Your task to perform on an android device: Search for vegetarian restaurants on Maps Image 0: 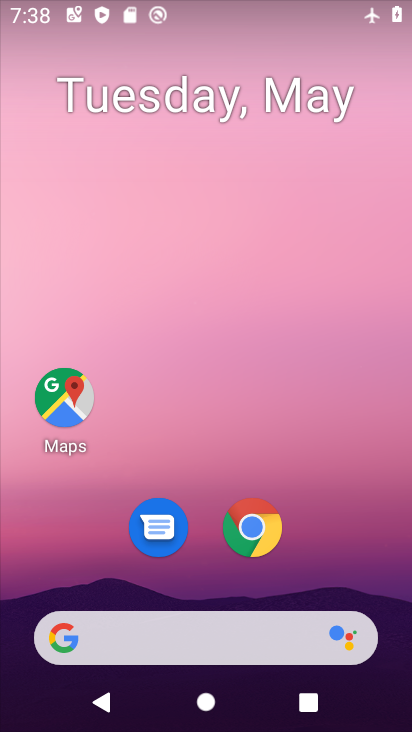
Step 0: click (64, 403)
Your task to perform on an android device: Search for vegetarian restaurants on Maps Image 1: 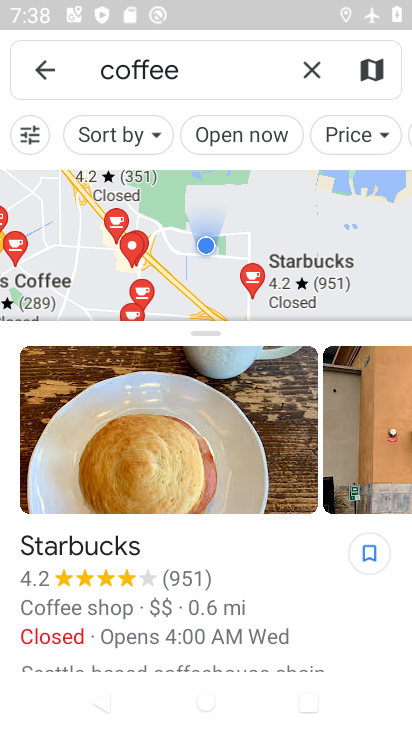
Step 1: click (313, 70)
Your task to perform on an android device: Search for vegetarian restaurants on Maps Image 2: 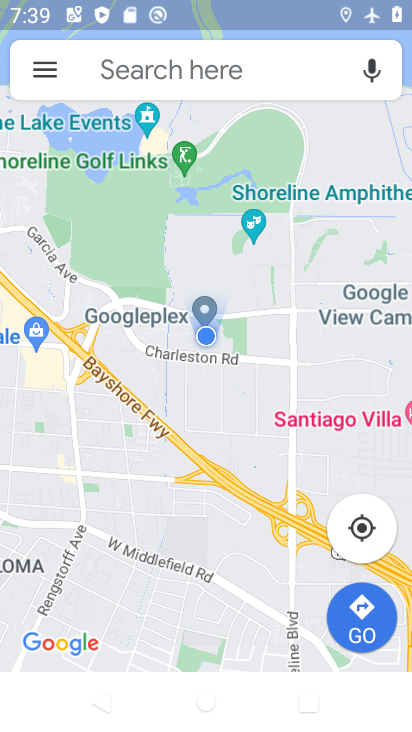
Step 2: click (292, 75)
Your task to perform on an android device: Search for vegetarian restaurants on Maps Image 3: 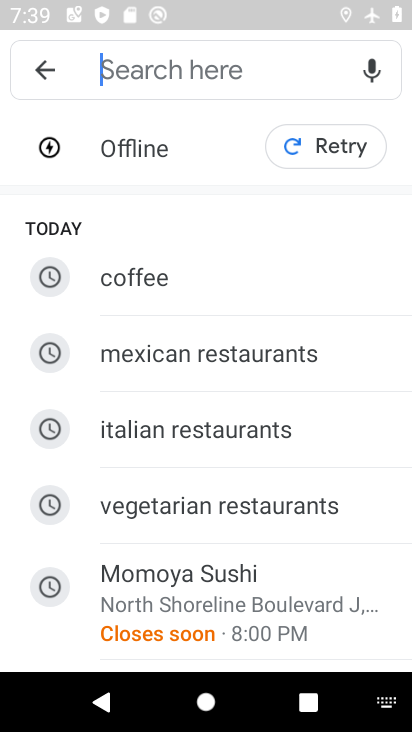
Step 3: type "vegetarian restaurants"
Your task to perform on an android device: Search for vegetarian restaurants on Maps Image 4: 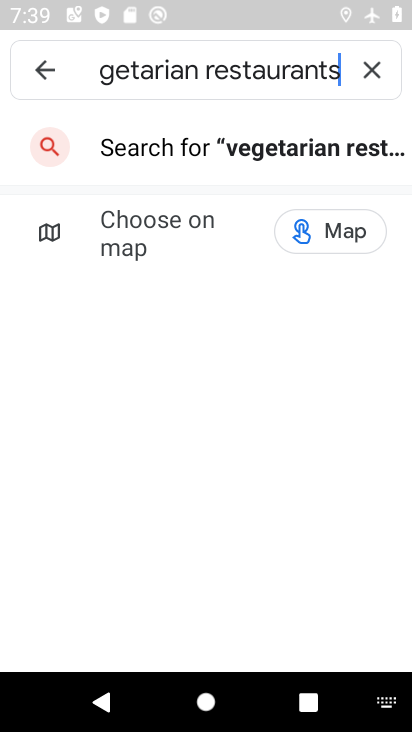
Step 4: task complete